Your task to perform on an android device: change alarm snooze length Image 0: 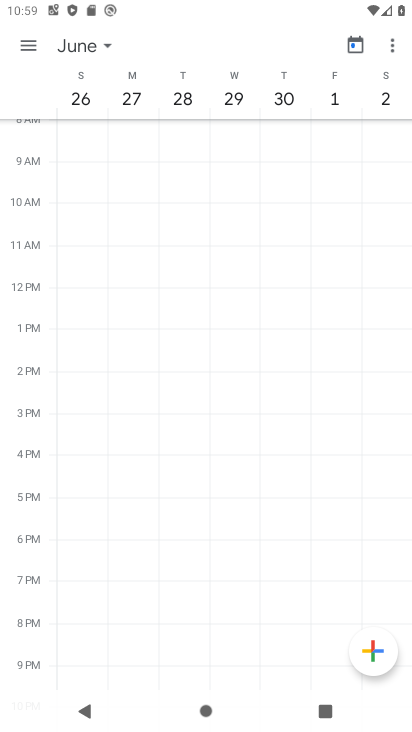
Step 0: press home button
Your task to perform on an android device: change alarm snooze length Image 1: 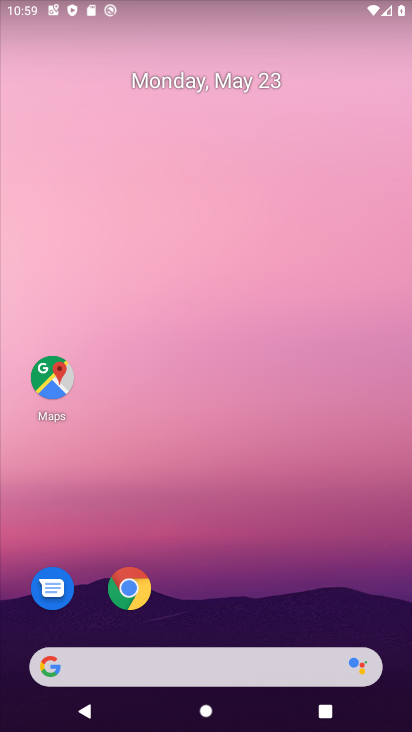
Step 1: click (268, 158)
Your task to perform on an android device: change alarm snooze length Image 2: 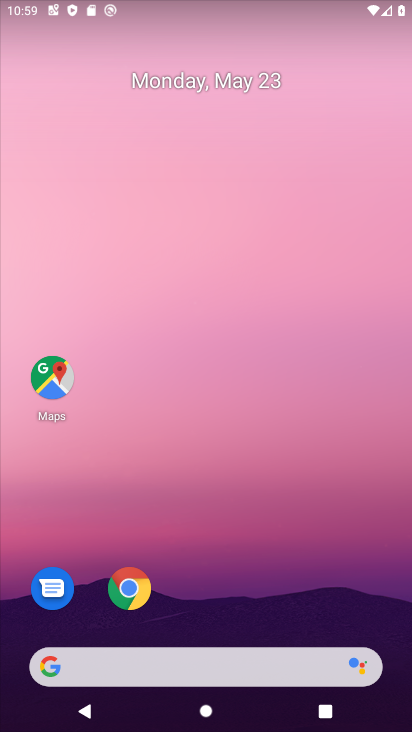
Step 2: drag from (322, 594) to (309, 180)
Your task to perform on an android device: change alarm snooze length Image 3: 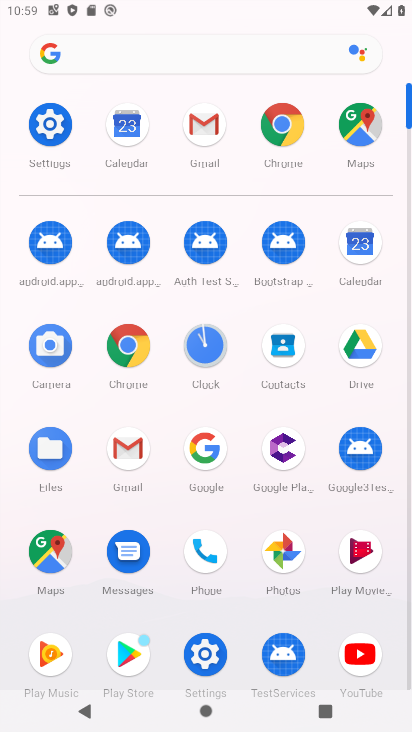
Step 3: click (207, 341)
Your task to perform on an android device: change alarm snooze length Image 4: 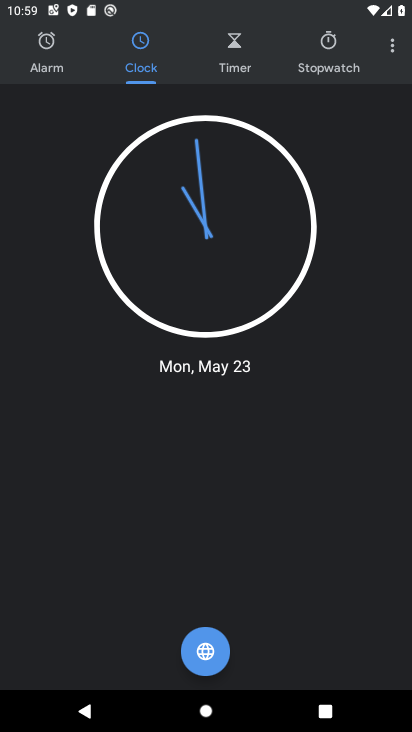
Step 4: click (395, 49)
Your task to perform on an android device: change alarm snooze length Image 5: 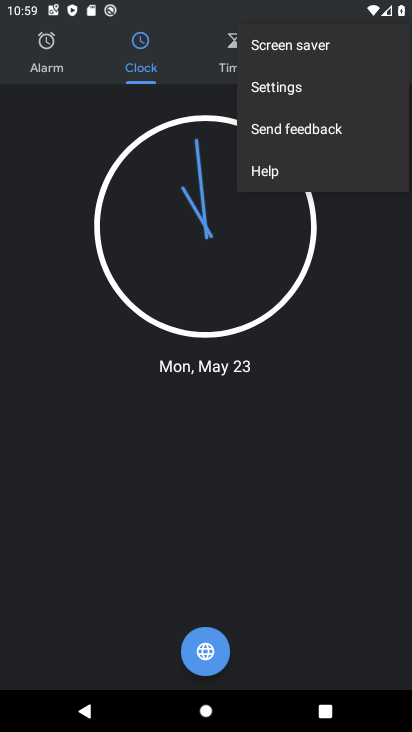
Step 5: click (295, 97)
Your task to perform on an android device: change alarm snooze length Image 6: 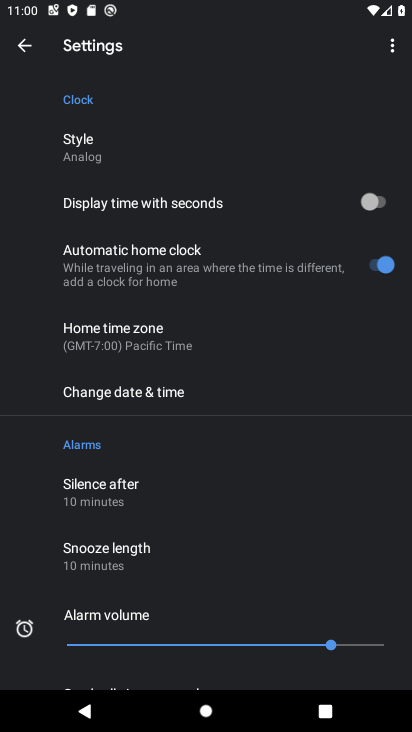
Step 6: click (146, 560)
Your task to perform on an android device: change alarm snooze length Image 7: 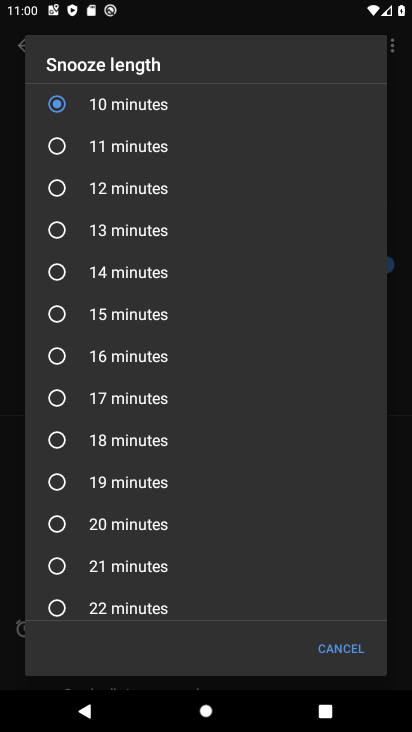
Step 7: click (149, 151)
Your task to perform on an android device: change alarm snooze length Image 8: 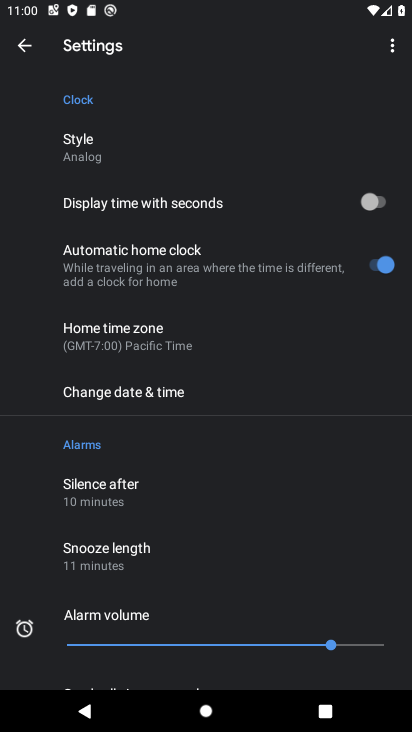
Step 8: task complete